Your task to perform on an android device: Go to sound settings Image 0: 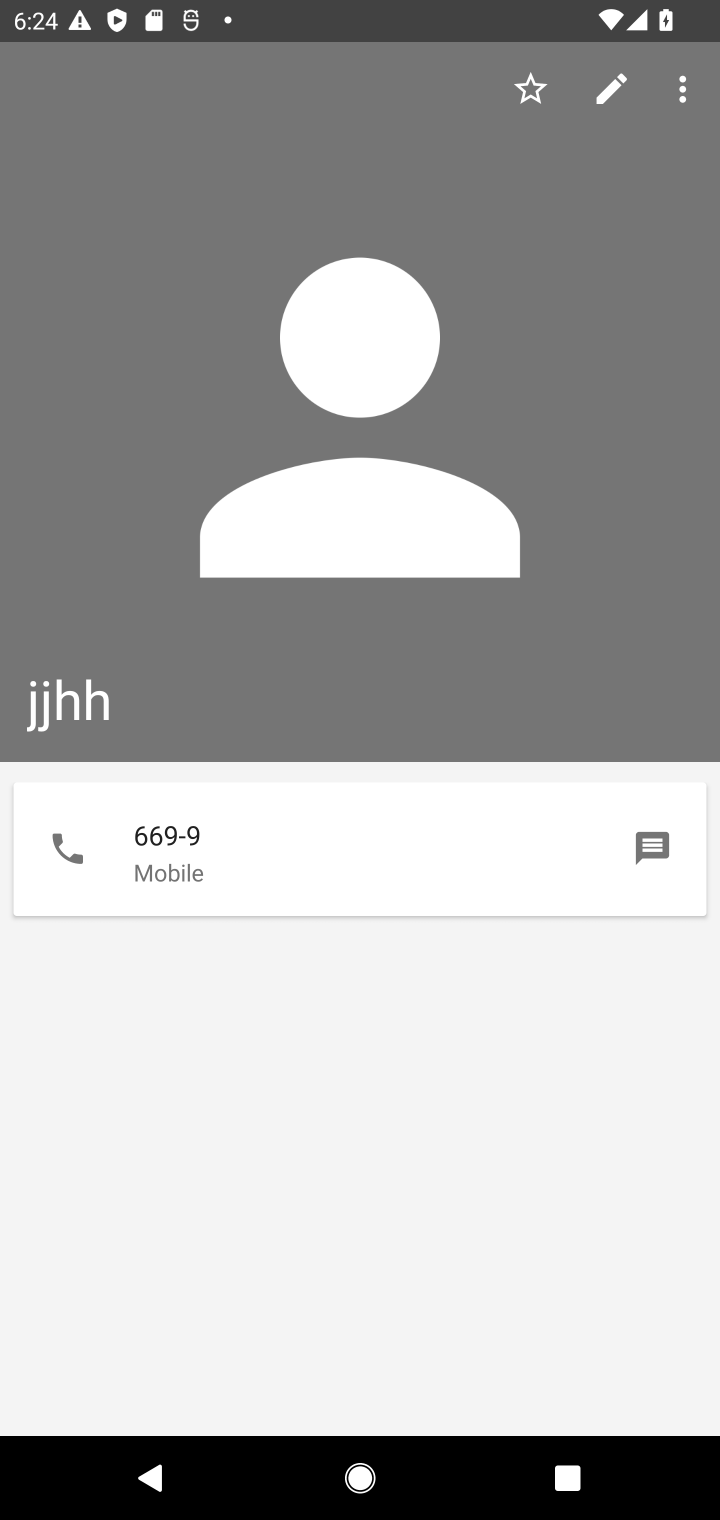
Step 0: press home button
Your task to perform on an android device: Go to sound settings Image 1: 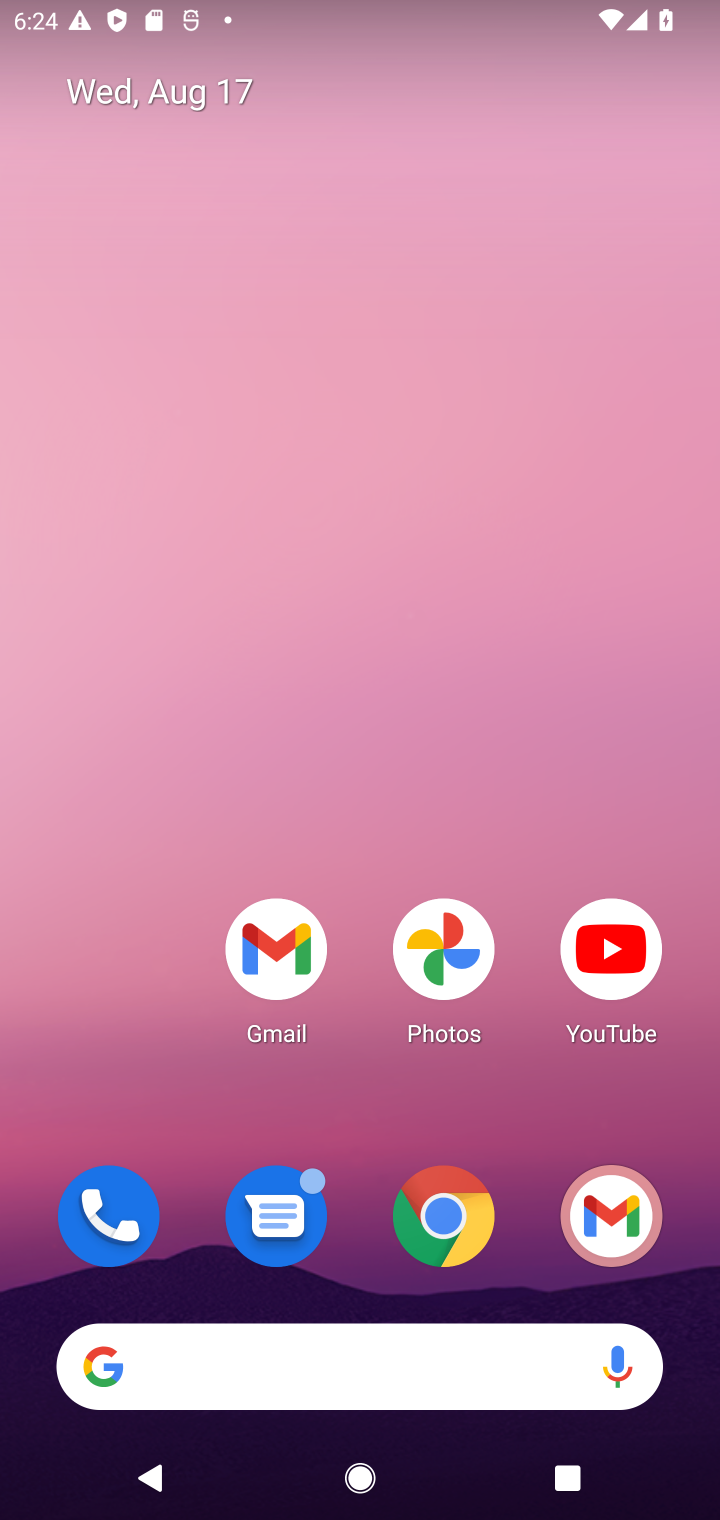
Step 1: drag from (564, 989) to (490, 120)
Your task to perform on an android device: Go to sound settings Image 2: 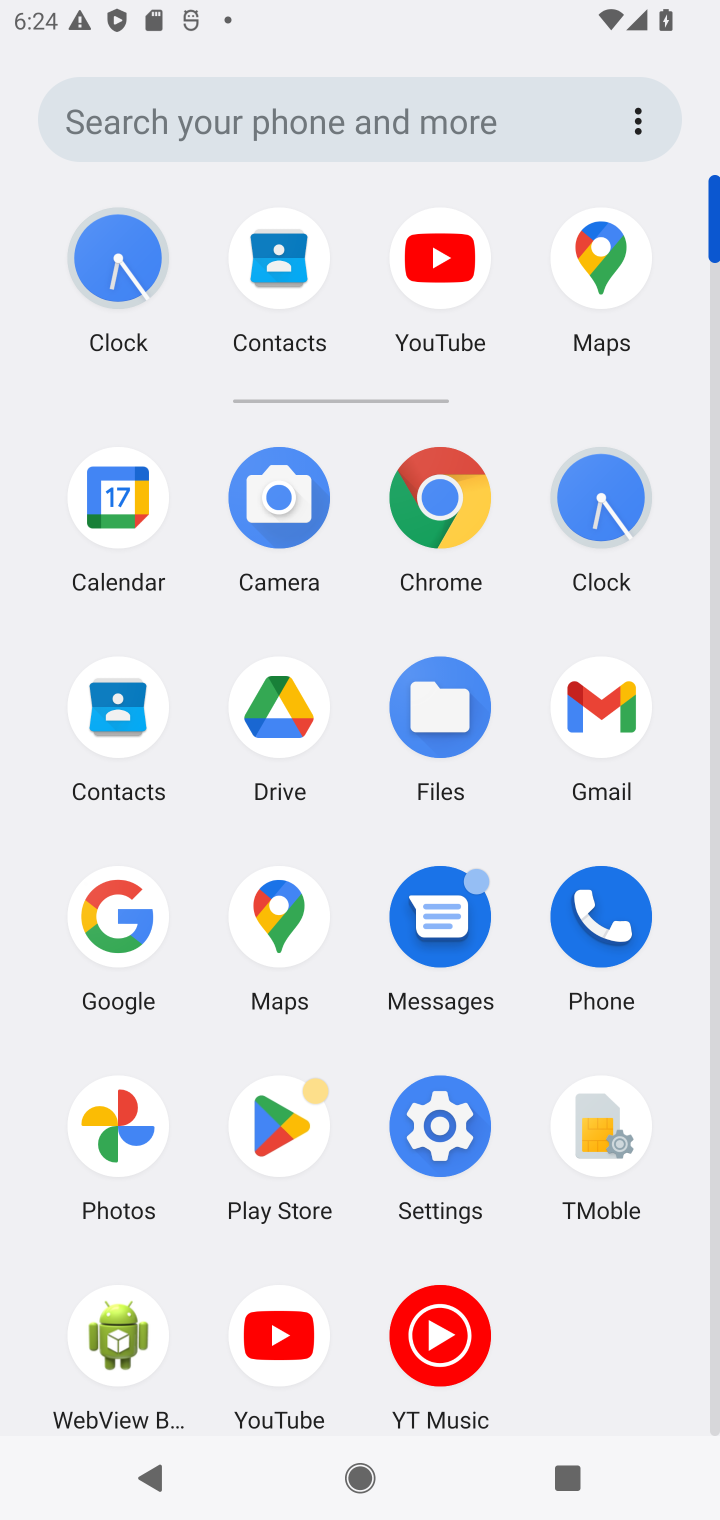
Step 2: click (434, 1112)
Your task to perform on an android device: Go to sound settings Image 3: 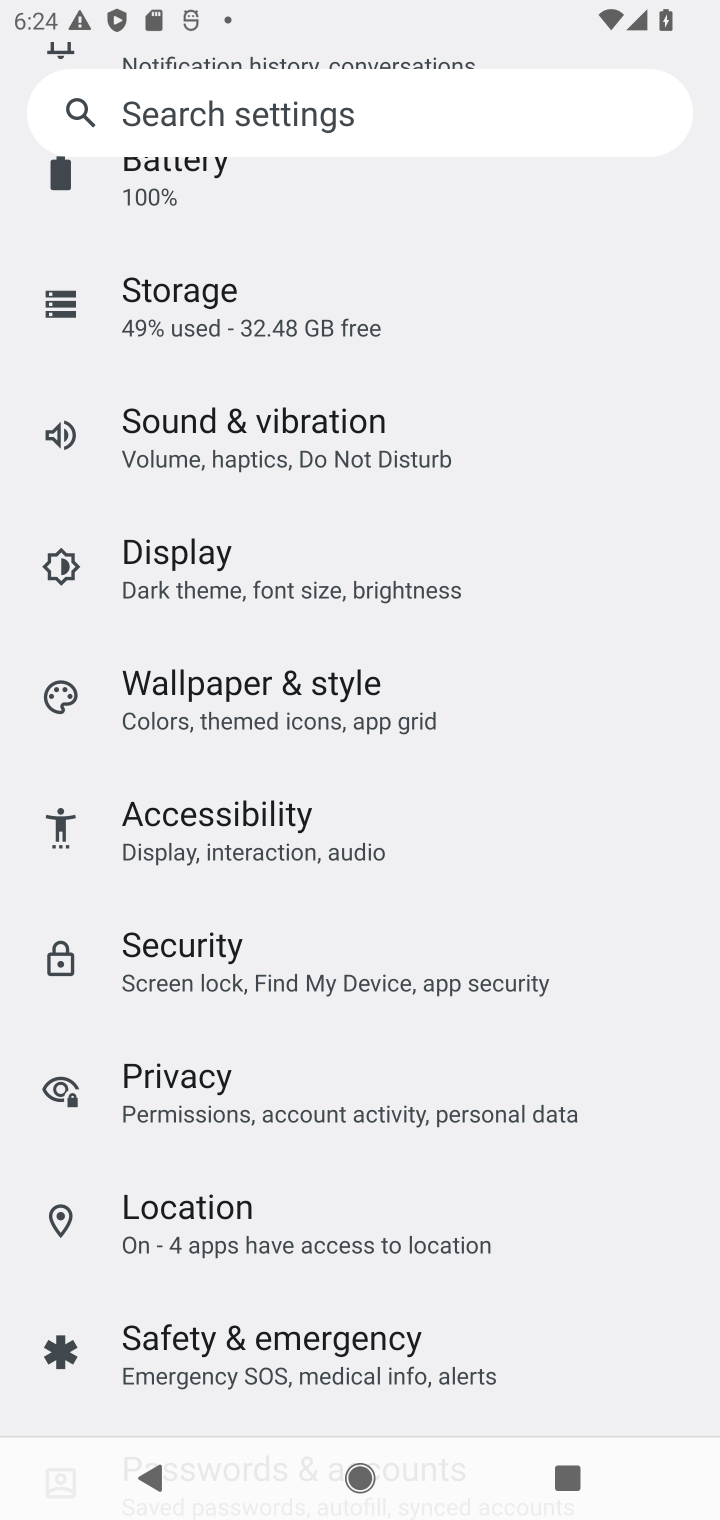
Step 3: click (235, 424)
Your task to perform on an android device: Go to sound settings Image 4: 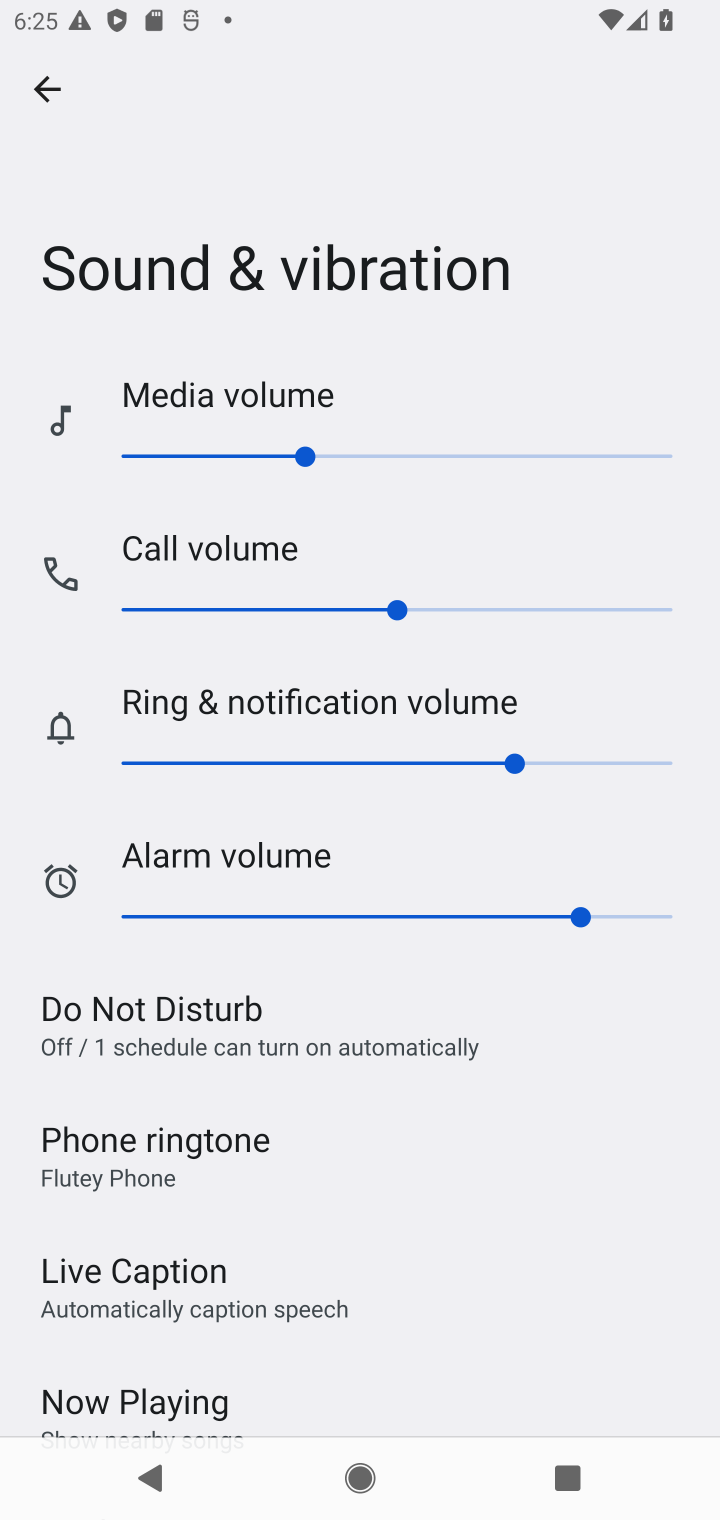
Step 4: task complete